Your task to perform on an android device: turn off location history Image 0: 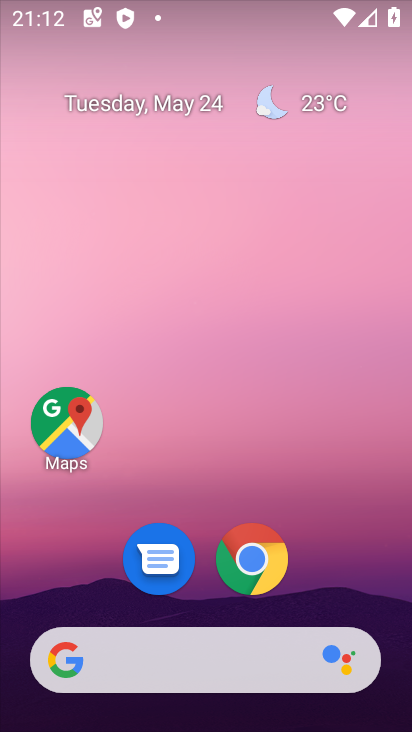
Step 0: drag from (326, 507) to (286, 183)
Your task to perform on an android device: turn off location history Image 1: 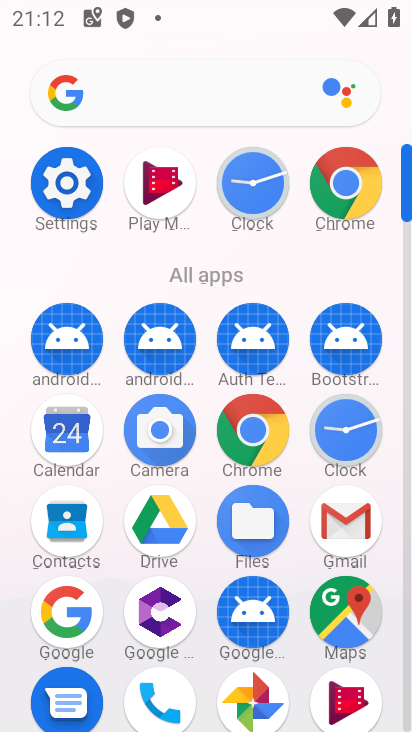
Step 1: click (80, 201)
Your task to perform on an android device: turn off location history Image 2: 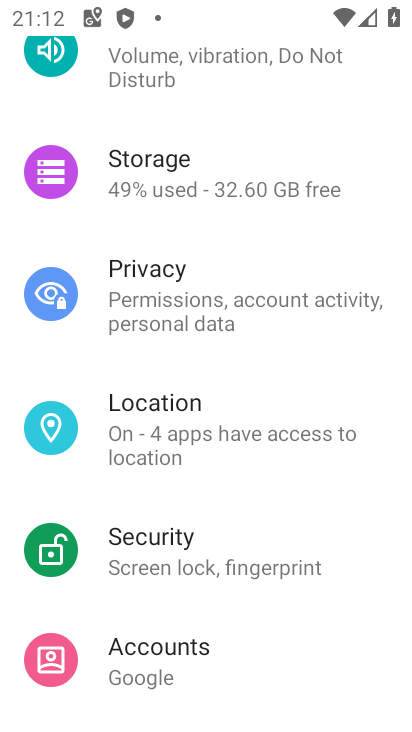
Step 2: click (202, 422)
Your task to perform on an android device: turn off location history Image 3: 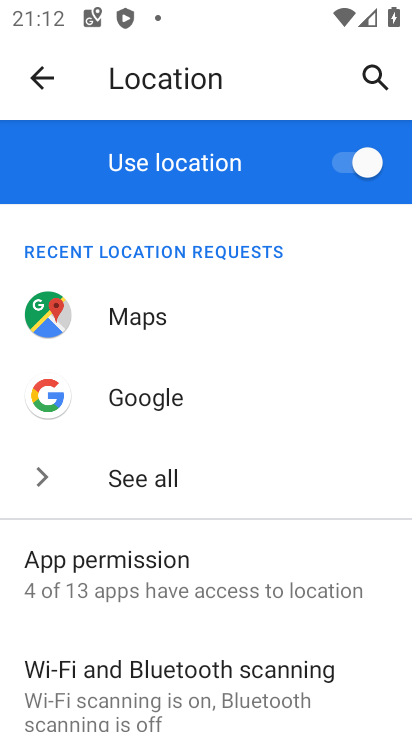
Step 3: drag from (260, 573) to (281, 236)
Your task to perform on an android device: turn off location history Image 4: 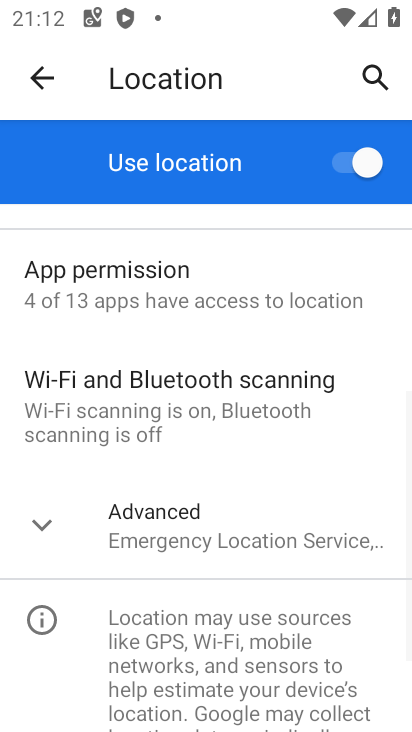
Step 4: click (164, 527)
Your task to perform on an android device: turn off location history Image 5: 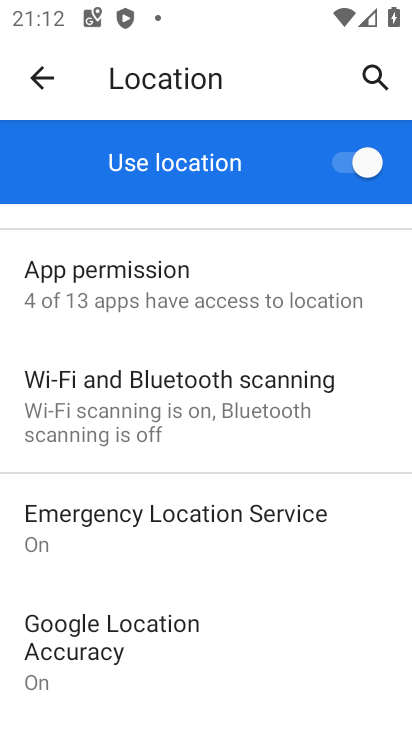
Step 5: drag from (236, 607) to (288, 233)
Your task to perform on an android device: turn off location history Image 6: 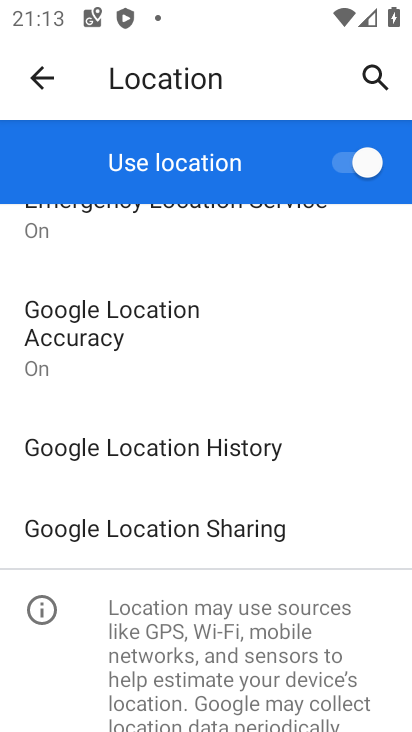
Step 6: click (249, 440)
Your task to perform on an android device: turn off location history Image 7: 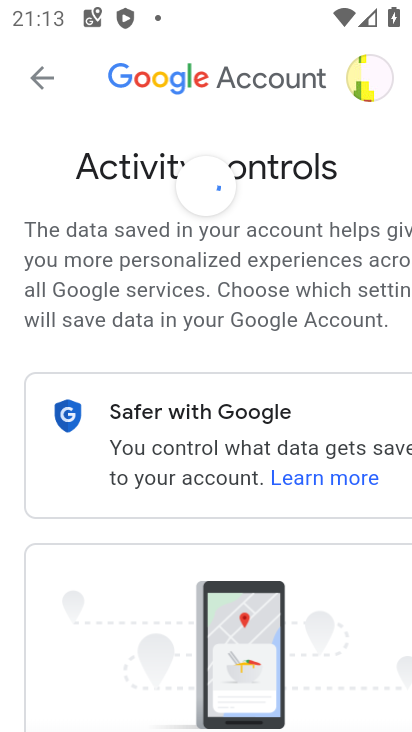
Step 7: drag from (243, 636) to (256, 194)
Your task to perform on an android device: turn off location history Image 8: 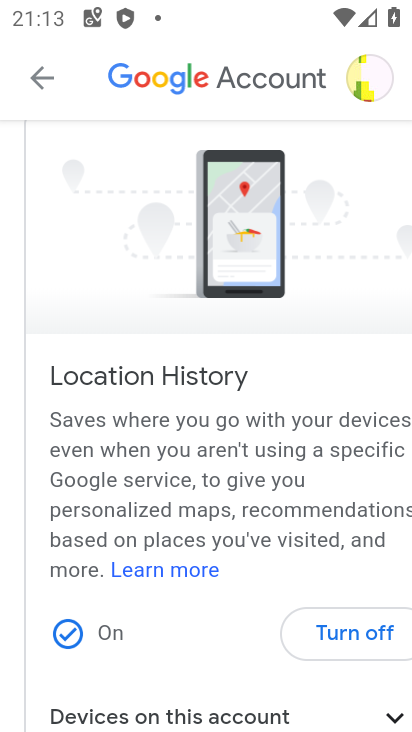
Step 8: click (362, 636)
Your task to perform on an android device: turn off location history Image 9: 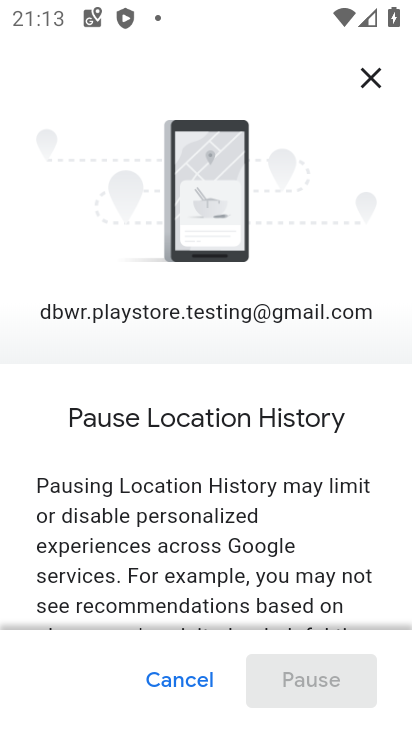
Step 9: drag from (287, 617) to (296, 127)
Your task to perform on an android device: turn off location history Image 10: 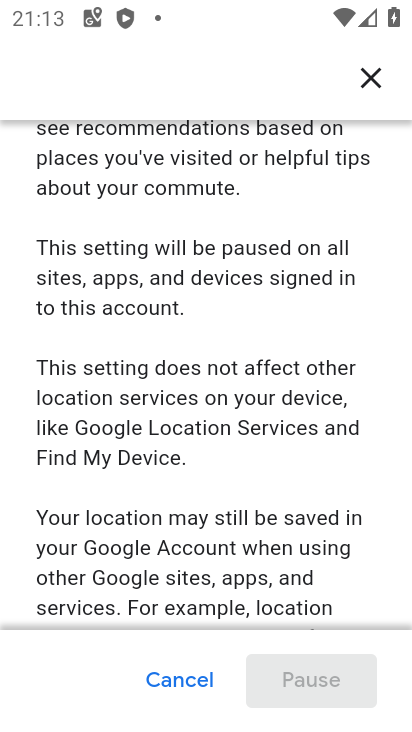
Step 10: drag from (263, 481) to (302, 147)
Your task to perform on an android device: turn off location history Image 11: 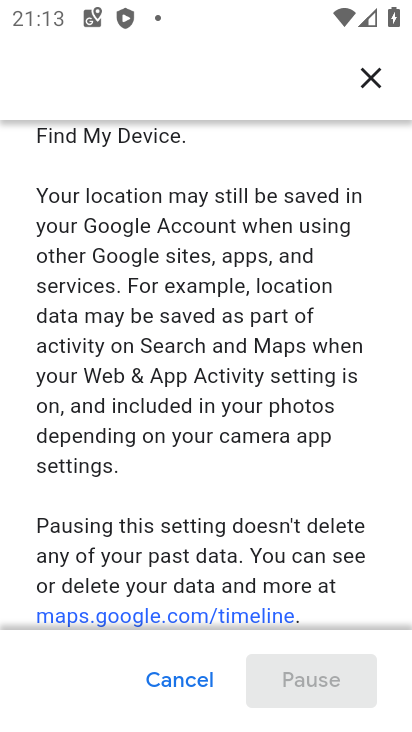
Step 11: drag from (247, 450) to (269, 101)
Your task to perform on an android device: turn off location history Image 12: 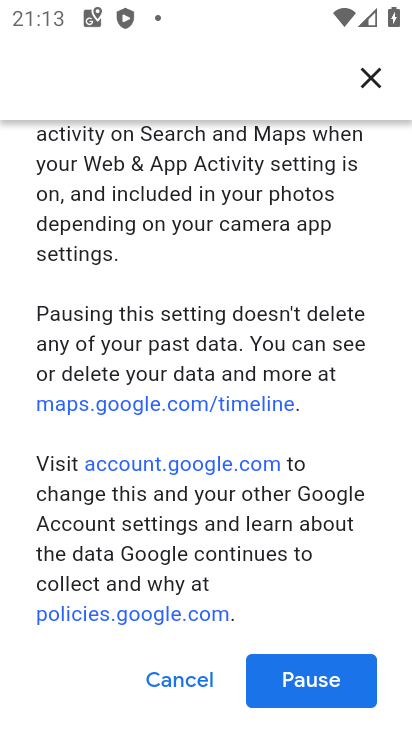
Step 12: drag from (220, 351) to (260, 142)
Your task to perform on an android device: turn off location history Image 13: 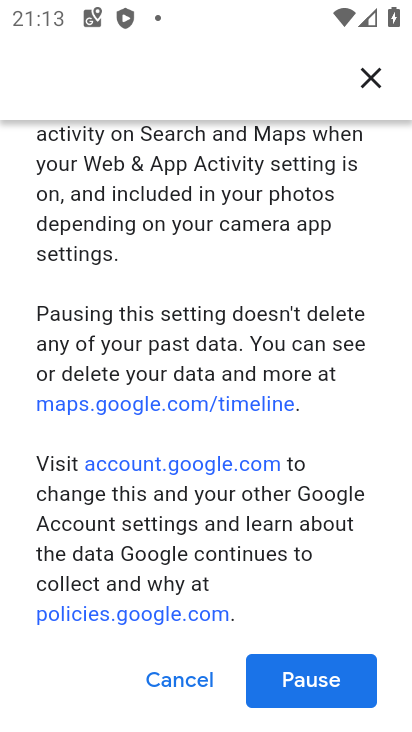
Step 13: click (280, 676)
Your task to perform on an android device: turn off location history Image 14: 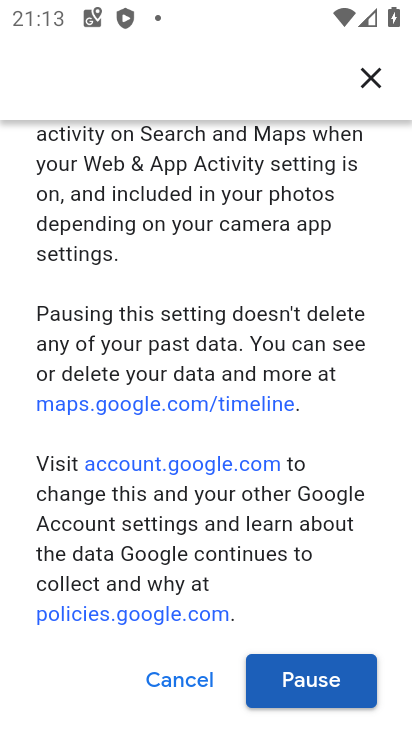
Step 14: click (278, 675)
Your task to perform on an android device: turn off location history Image 15: 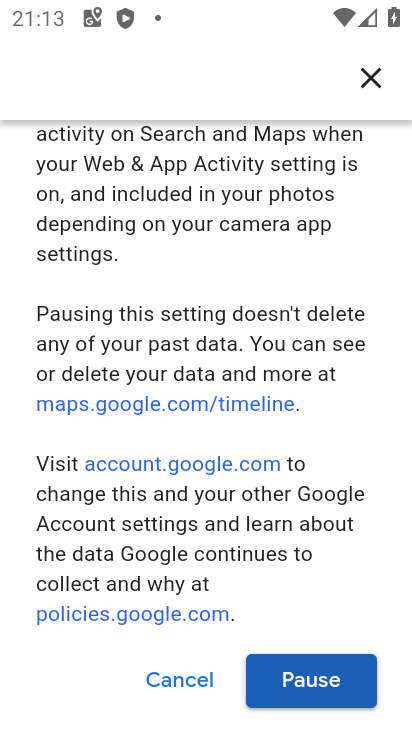
Step 15: click (316, 675)
Your task to perform on an android device: turn off location history Image 16: 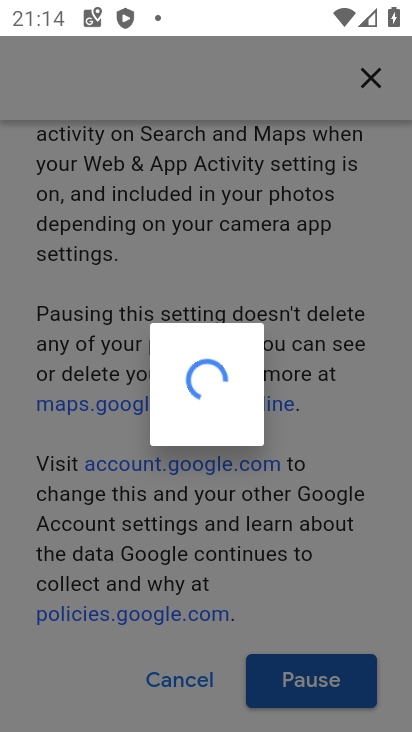
Step 16: click (316, 675)
Your task to perform on an android device: turn off location history Image 17: 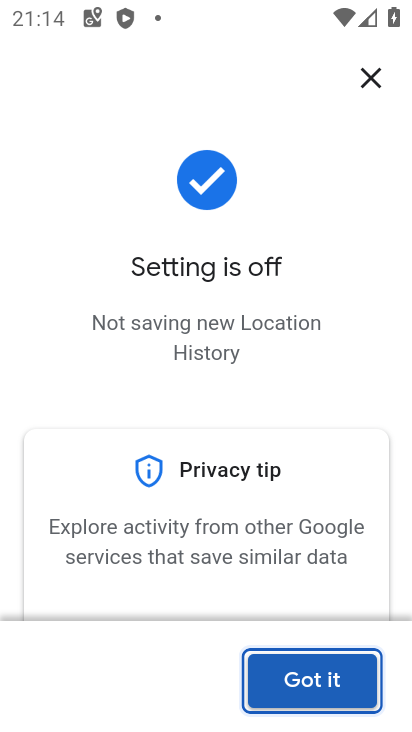
Step 17: task complete